Your task to perform on an android device: delete a single message in the gmail app Image 0: 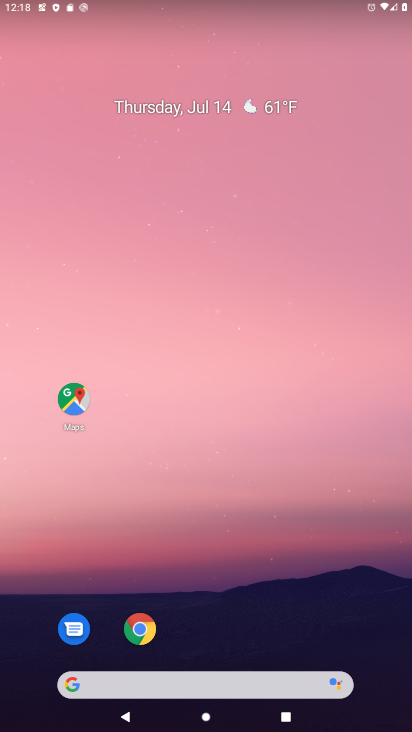
Step 0: drag from (254, 565) to (214, 147)
Your task to perform on an android device: delete a single message in the gmail app Image 1: 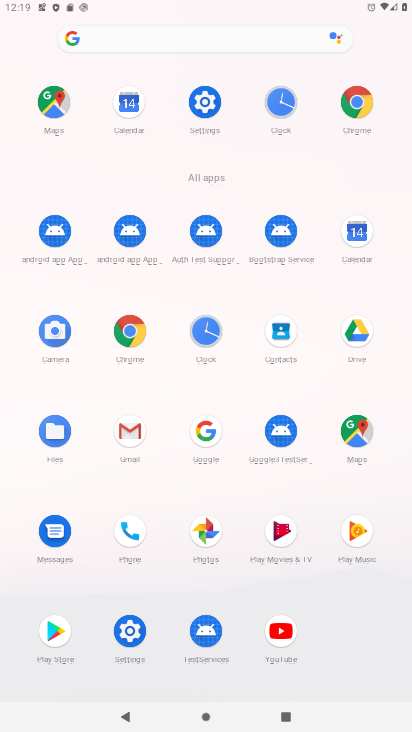
Step 1: click (131, 423)
Your task to perform on an android device: delete a single message in the gmail app Image 2: 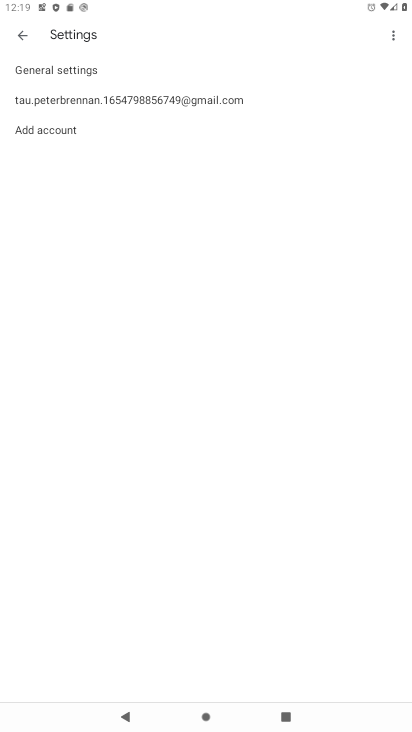
Step 2: click (24, 35)
Your task to perform on an android device: delete a single message in the gmail app Image 3: 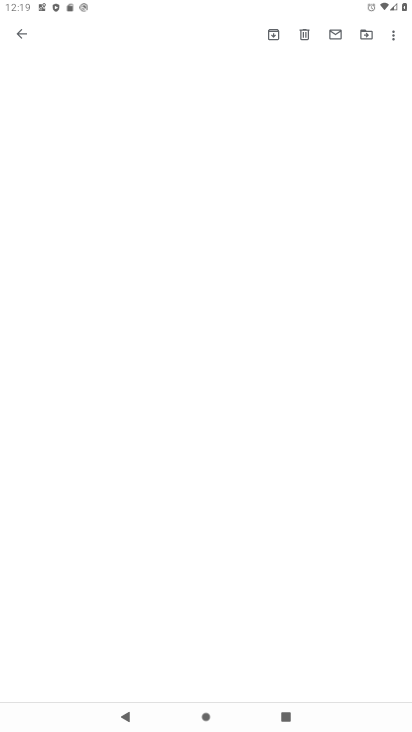
Step 3: click (24, 35)
Your task to perform on an android device: delete a single message in the gmail app Image 4: 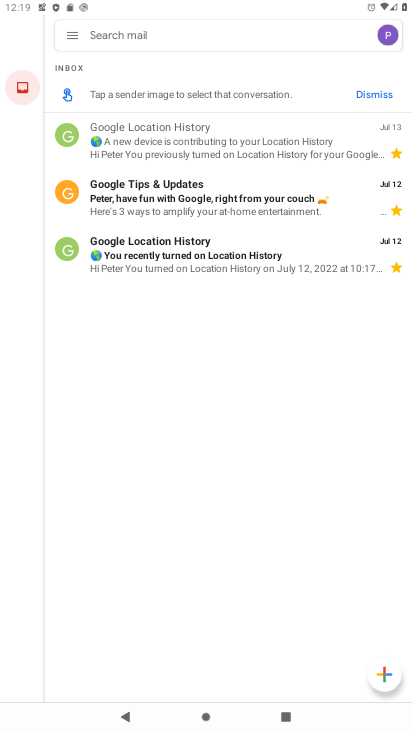
Step 4: click (144, 141)
Your task to perform on an android device: delete a single message in the gmail app Image 5: 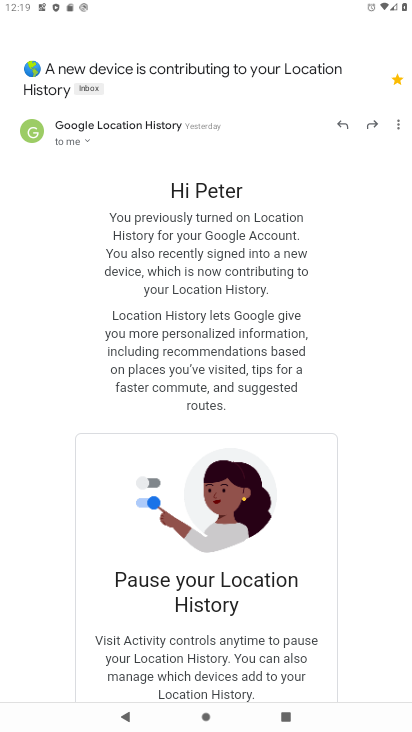
Step 5: click (396, 116)
Your task to perform on an android device: delete a single message in the gmail app Image 6: 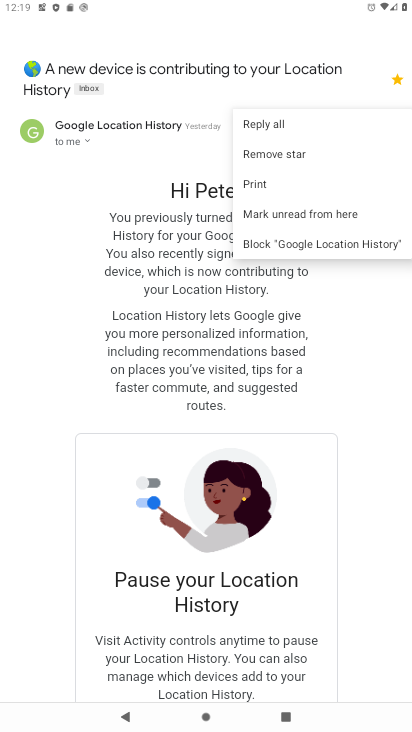
Step 6: click (358, 316)
Your task to perform on an android device: delete a single message in the gmail app Image 7: 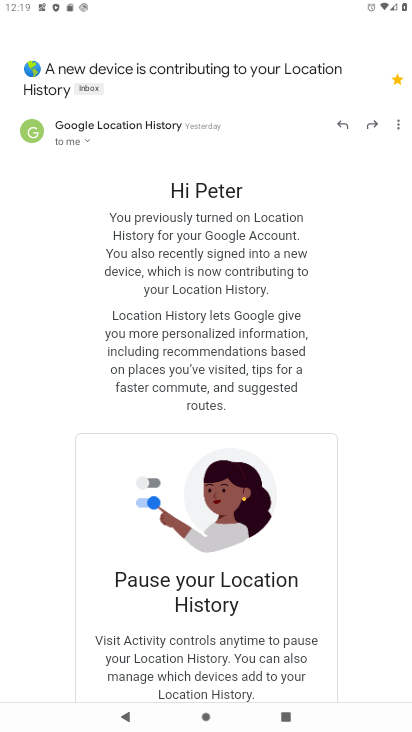
Step 7: press back button
Your task to perform on an android device: delete a single message in the gmail app Image 8: 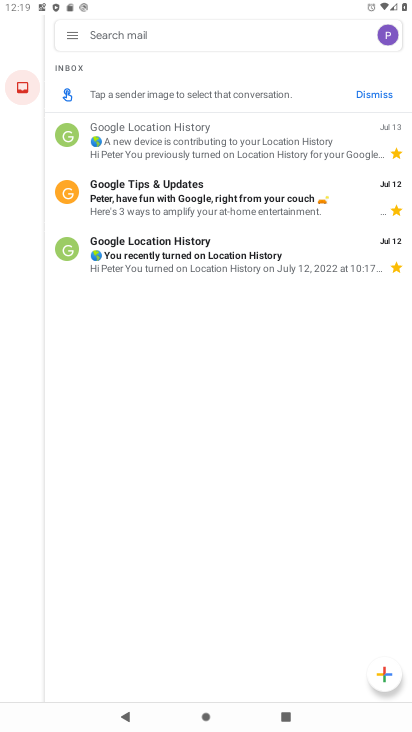
Step 8: click (126, 137)
Your task to perform on an android device: delete a single message in the gmail app Image 9: 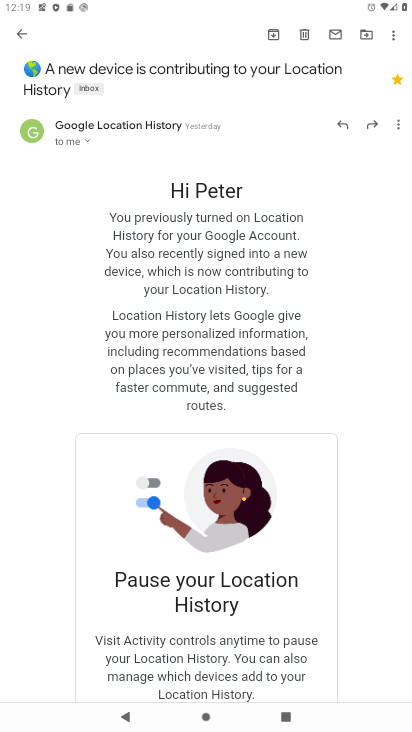
Step 9: click (396, 31)
Your task to perform on an android device: delete a single message in the gmail app Image 10: 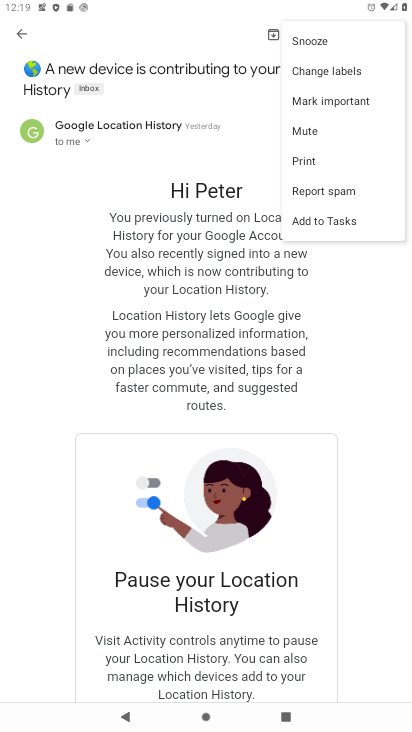
Step 10: drag from (375, 199) to (351, 46)
Your task to perform on an android device: delete a single message in the gmail app Image 11: 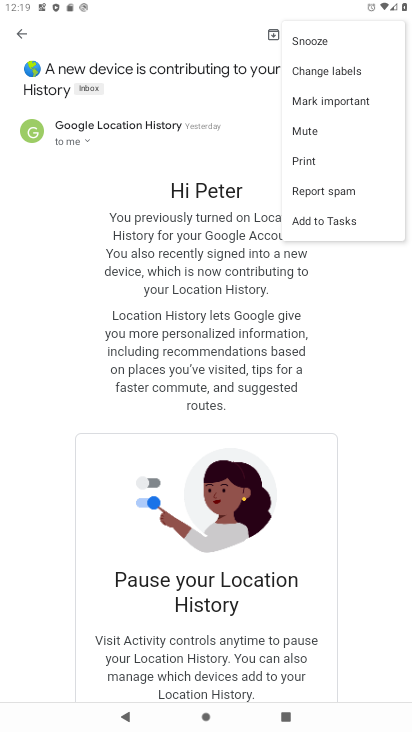
Step 11: click (346, 307)
Your task to perform on an android device: delete a single message in the gmail app Image 12: 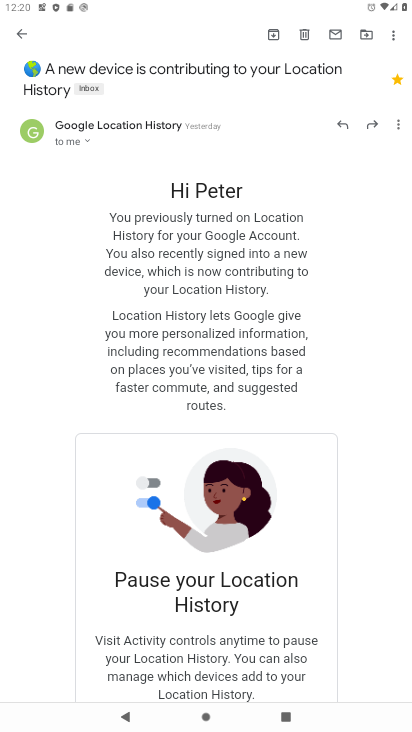
Step 12: click (304, 36)
Your task to perform on an android device: delete a single message in the gmail app Image 13: 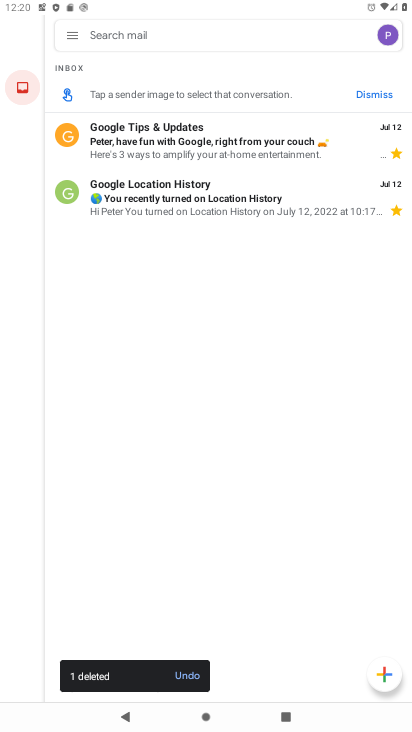
Step 13: task complete